Your task to perform on an android device: see tabs open on other devices in the chrome app Image 0: 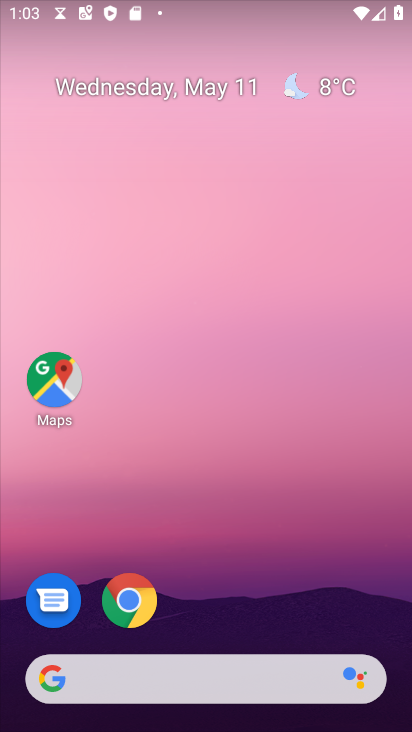
Step 0: click (140, 600)
Your task to perform on an android device: see tabs open on other devices in the chrome app Image 1: 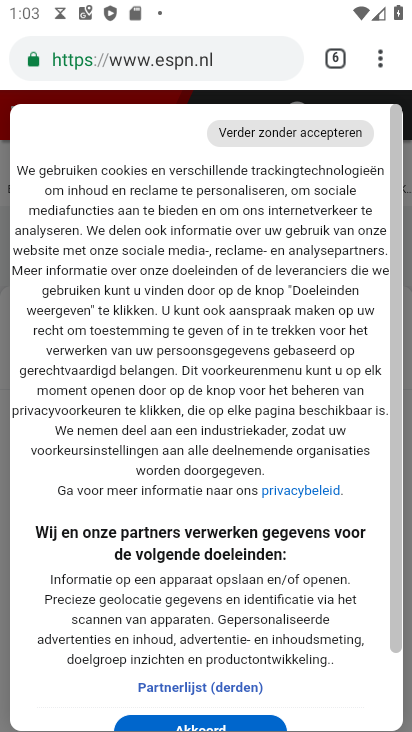
Step 1: click (376, 48)
Your task to perform on an android device: see tabs open on other devices in the chrome app Image 2: 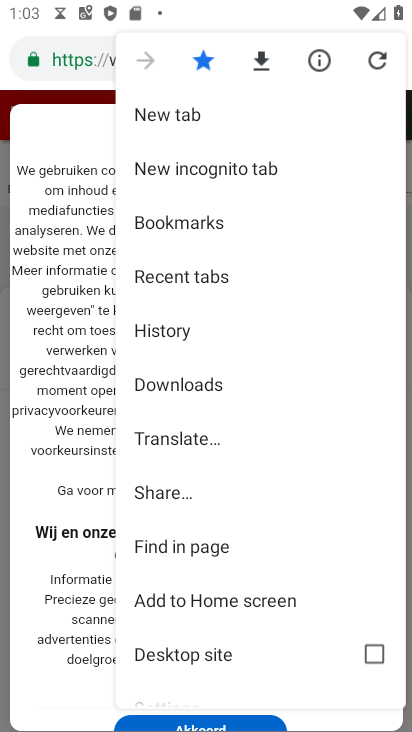
Step 2: click (205, 269)
Your task to perform on an android device: see tabs open on other devices in the chrome app Image 3: 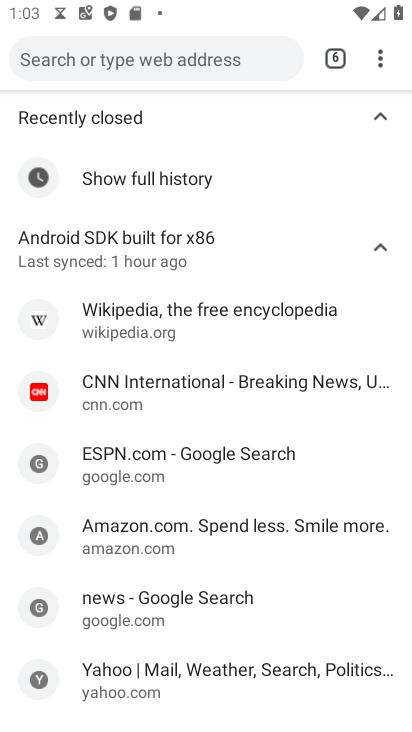
Step 3: task complete